Your task to perform on an android device: turn on the 24-hour format for clock Image 0: 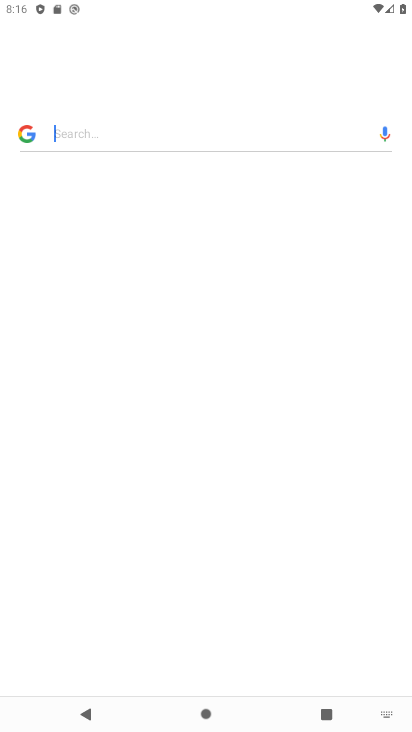
Step 0: click (261, 680)
Your task to perform on an android device: turn on the 24-hour format for clock Image 1: 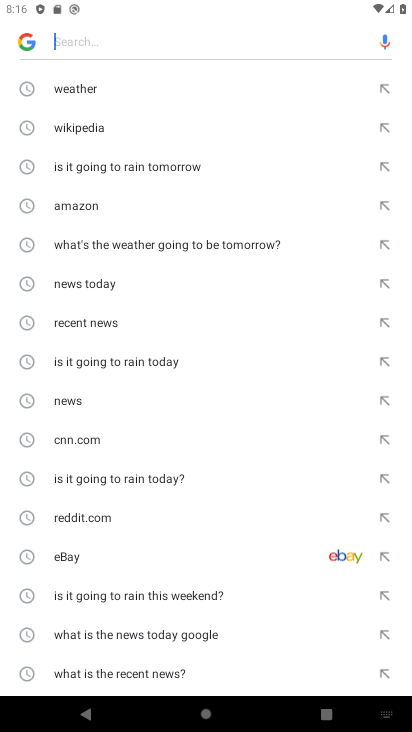
Step 1: press home button
Your task to perform on an android device: turn on the 24-hour format for clock Image 2: 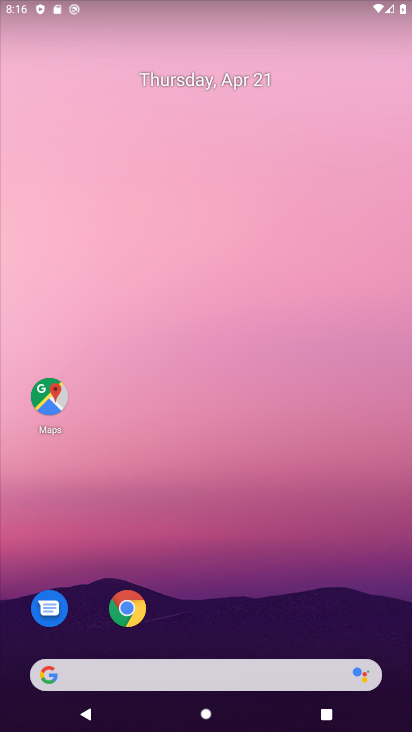
Step 2: drag from (296, 605) to (284, 65)
Your task to perform on an android device: turn on the 24-hour format for clock Image 3: 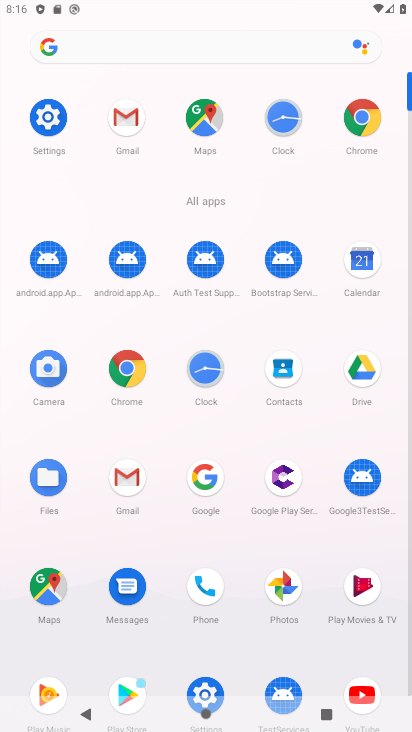
Step 3: click (209, 355)
Your task to perform on an android device: turn on the 24-hour format for clock Image 4: 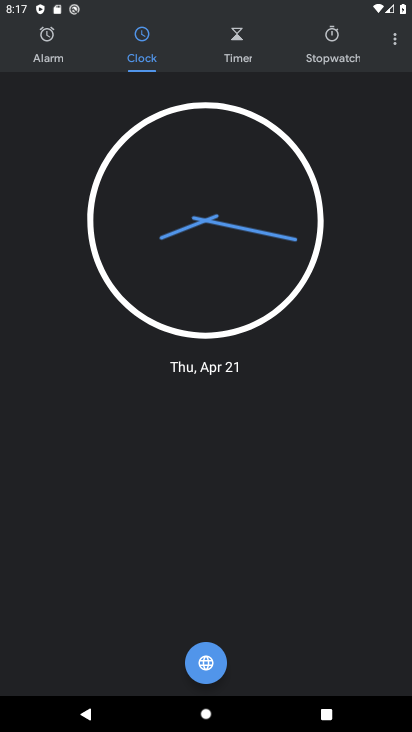
Step 4: click (394, 35)
Your task to perform on an android device: turn on the 24-hour format for clock Image 5: 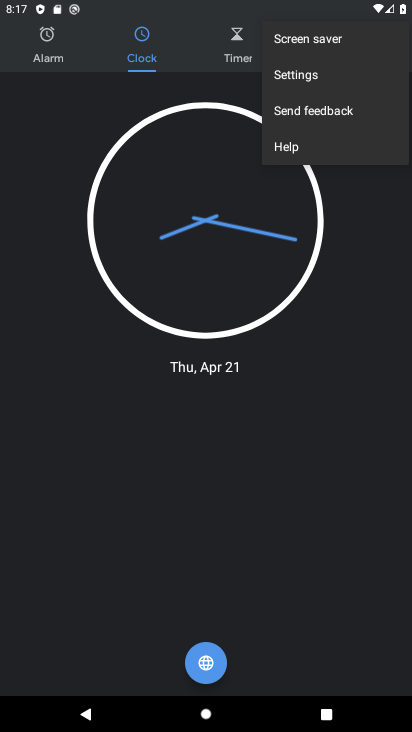
Step 5: click (296, 83)
Your task to perform on an android device: turn on the 24-hour format for clock Image 6: 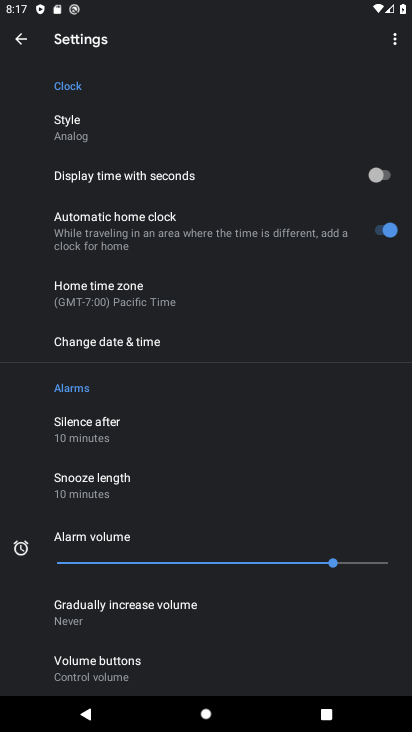
Step 6: click (105, 333)
Your task to perform on an android device: turn on the 24-hour format for clock Image 7: 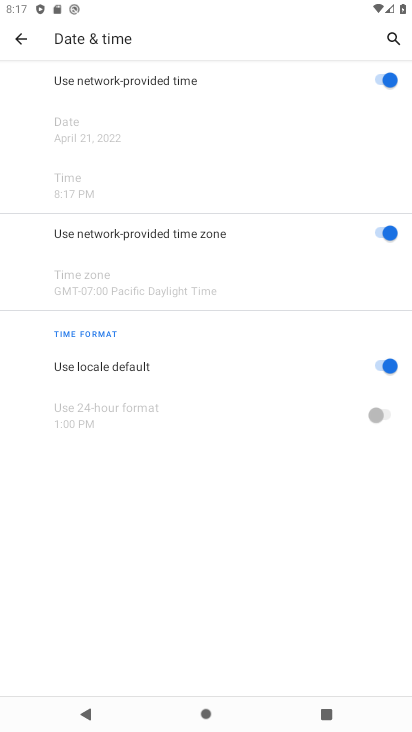
Step 7: click (383, 366)
Your task to perform on an android device: turn on the 24-hour format for clock Image 8: 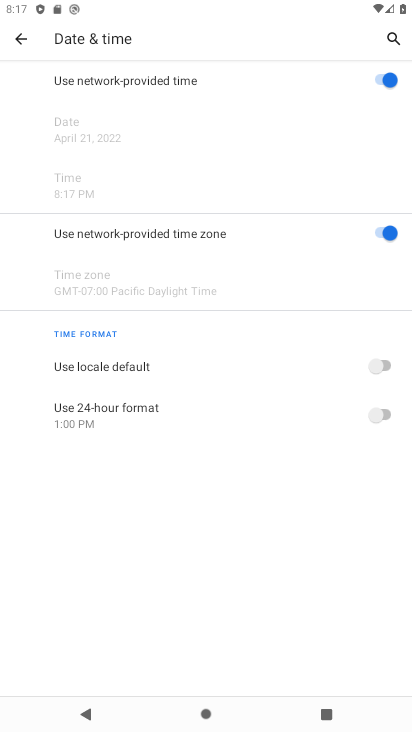
Step 8: click (382, 413)
Your task to perform on an android device: turn on the 24-hour format for clock Image 9: 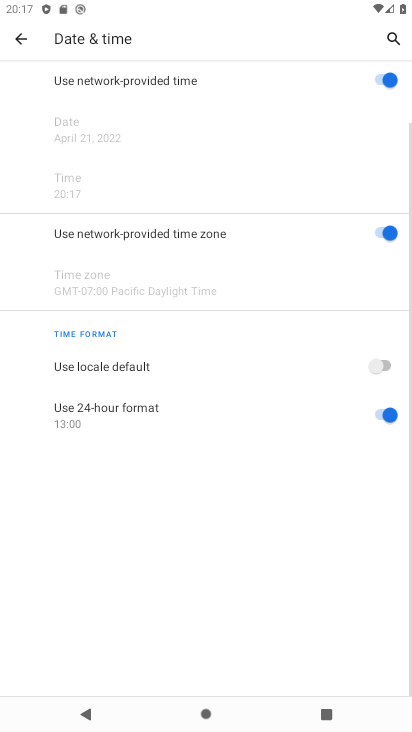
Step 9: task complete